Your task to perform on an android device: change notification settings in the gmail app Image 0: 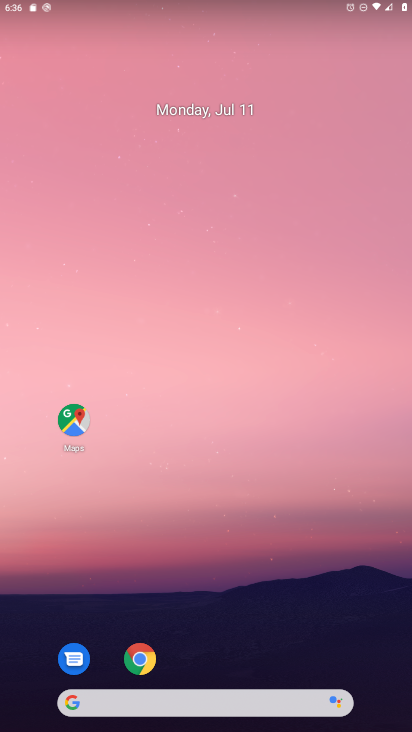
Step 0: drag from (374, 658) to (343, 112)
Your task to perform on an android device: change notification settings in the gmail app Image 1: 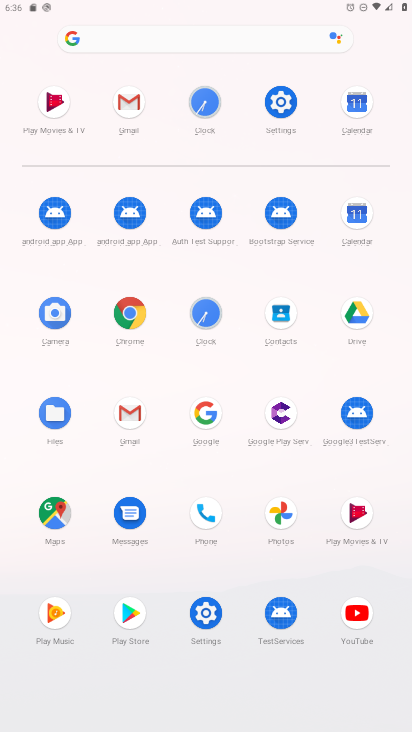
Step 1: click (130, 415)
Your task to perform on an android device: change notification settings in the gmail app Image 2: 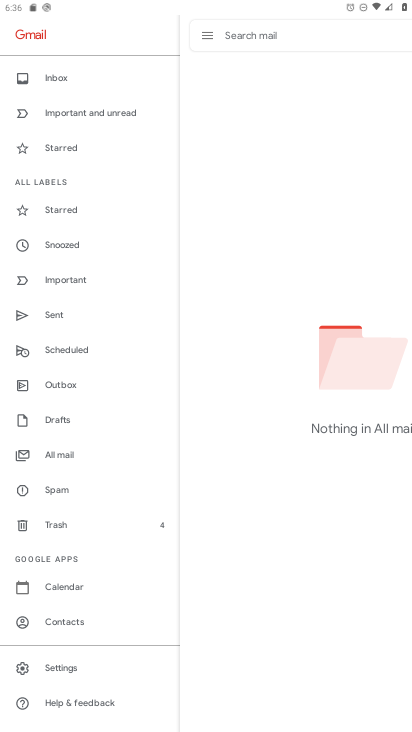
Step 2: click (53, 661)
Your task to perform on an android device: change notification settings in the gmail app Image 3: 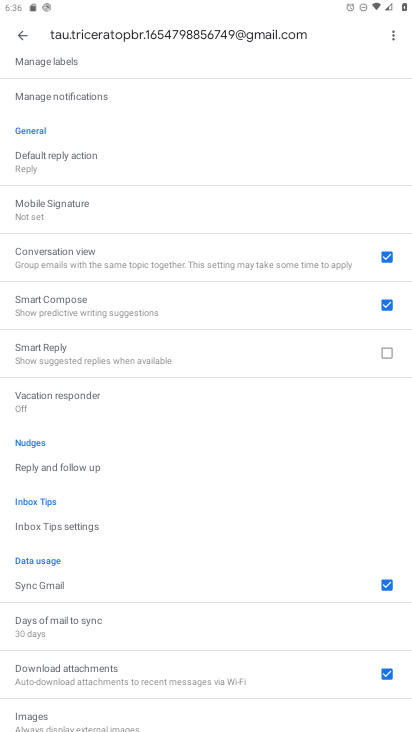
Step 3: drag from (205, 128) to (214, 381)
Your task to perform on an android device: change notification settings in the gmail app Image 4: 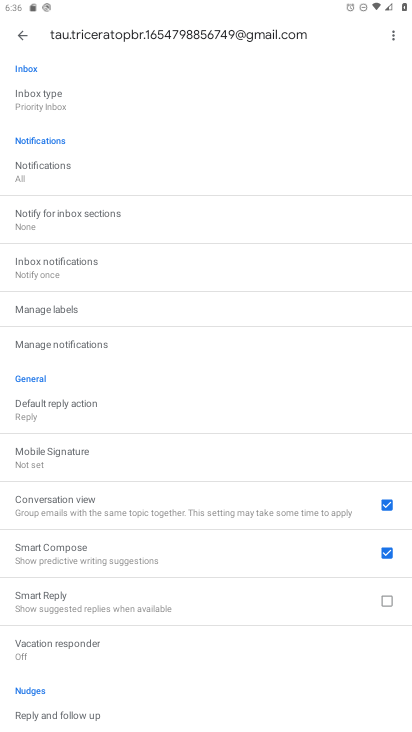
Step 4: click (62, 342)
Your task to perform on an android device: change notification settings in the gmail app Image 5: 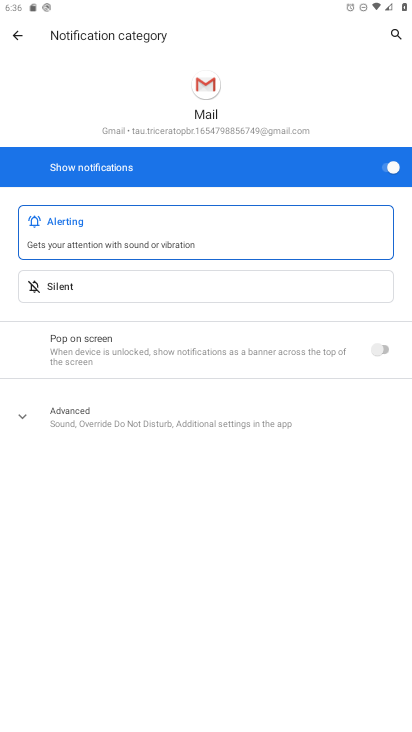
Step 5: click (383, 166)
Your task to perform on an android device: change notification settings in the gmail app Image 6: 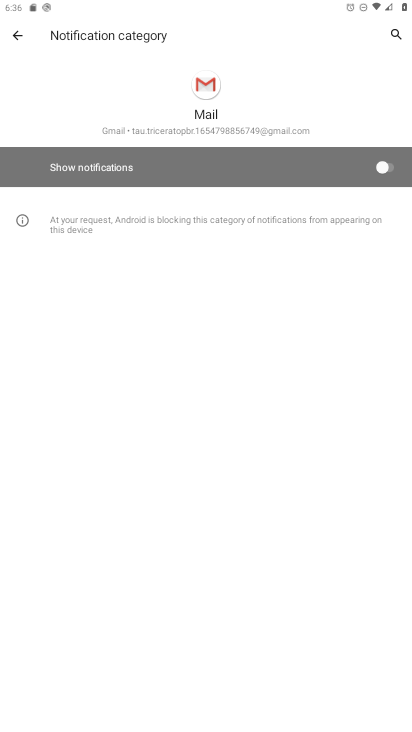
Step 6: task complete